Your task to perform on an android device: change the clock display to show seconds Image 0: 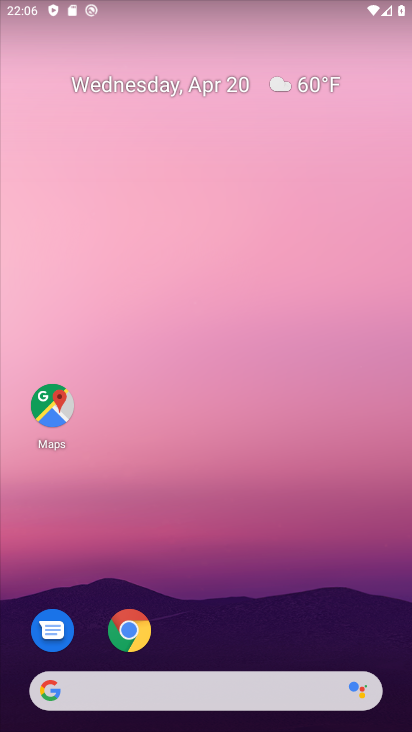
Step 0: drag from (240, 627) to (185, 109)
Your task to perform on an android device: change the clock display to show seconds Image 1: 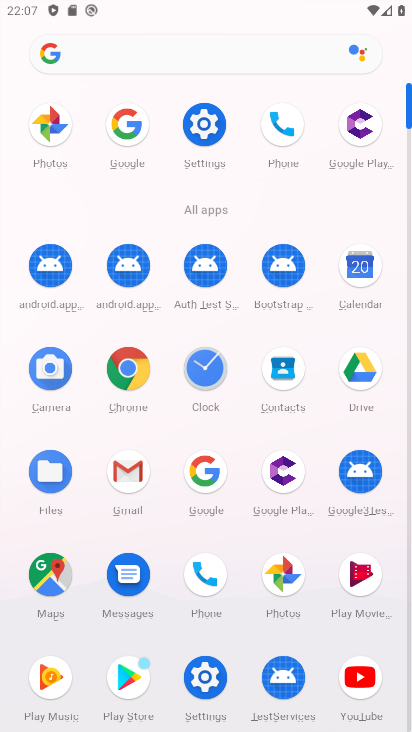
Step 1: click (207, 366)
Your task to perform on an android device: change the clock display to show seconds Image 2: 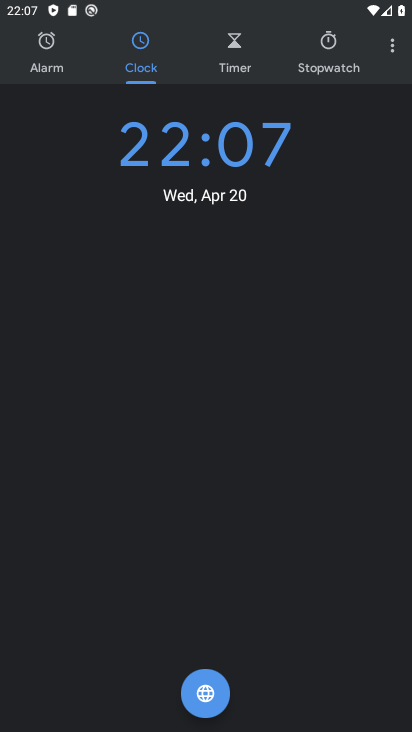
Step 2: click (387, 48)
Your task to perform on an android device: change the clock display to show seconds Image 3: 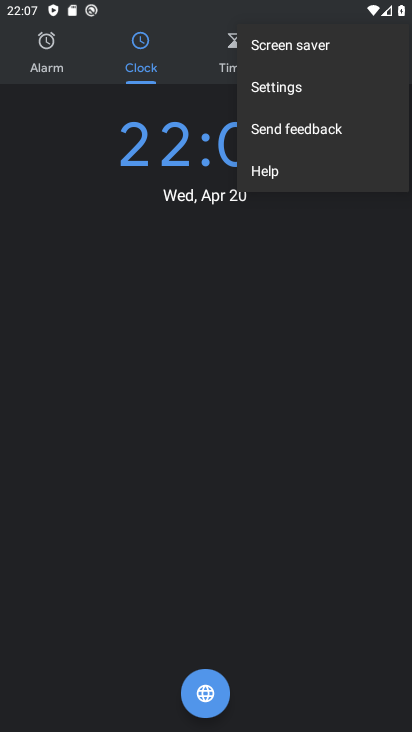
Step 3: click (317, 85)
Your task to perform on an android device: change the clock display to show seconds Image 4: 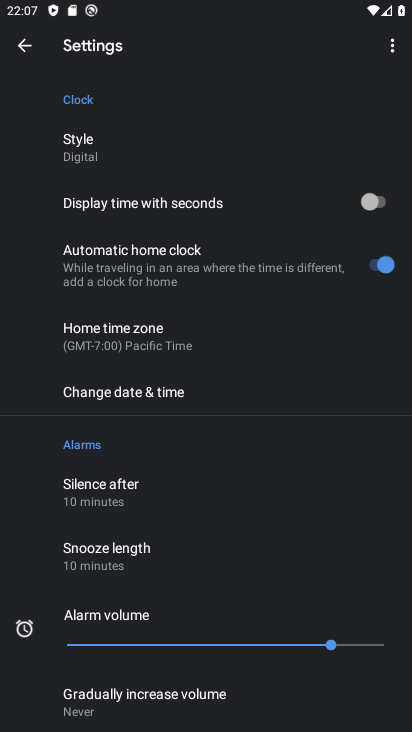
Step 4: drag from (298, 240) to (281, 447)
Your task to perform on an android device: change the clock display to show seconds Image 5: 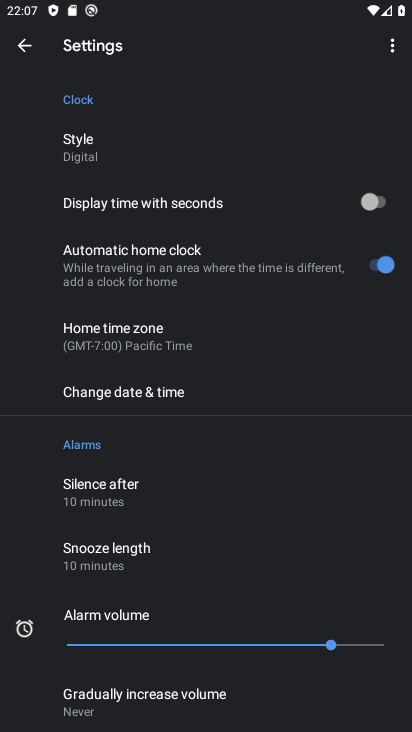
Step 5: click (377, 205)
Your task to perform on an android device: change the clock display to show seconds Image 6: 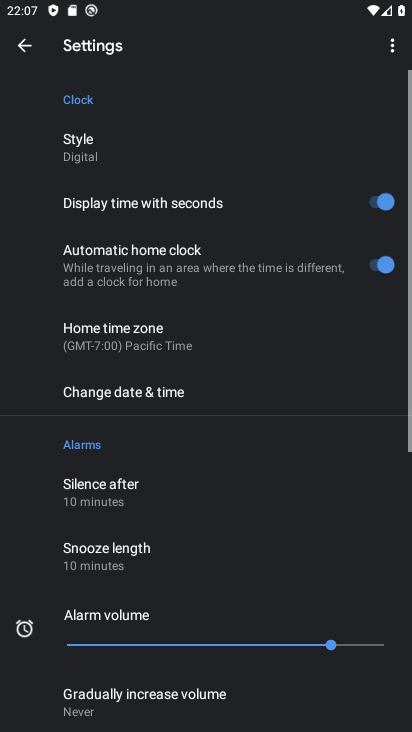
Step 6: task complete